Your task to perform on an android device: turn off sleep mode Image 0: 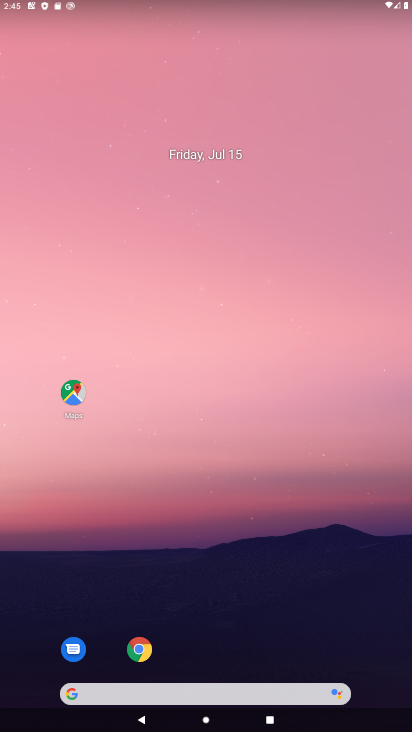
Step 0: drag from (297, 690) to (203, 80)
Your task to perform on an android device: turn off sleep mode Image 1: 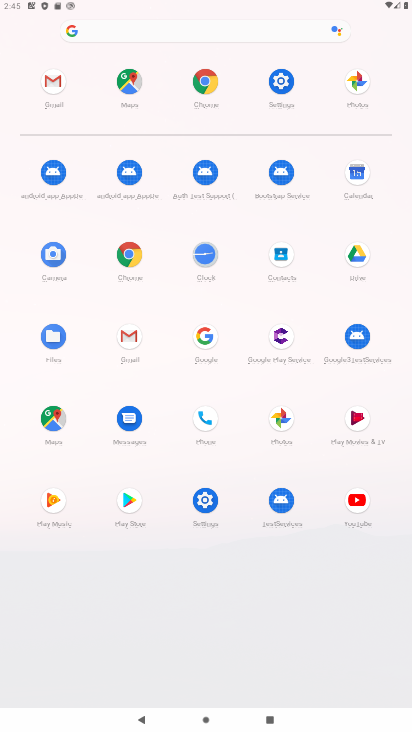
Step 1: click (281, 82)
Your task to perform on an android device: turn off sleep mode Image 2: 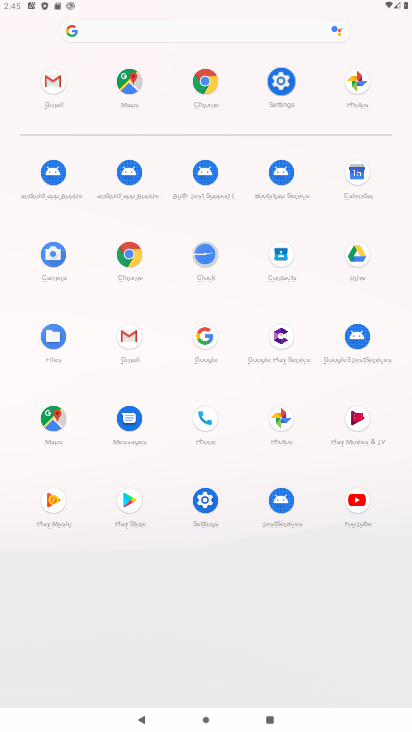
Step 2: click (281, 82)
Your task to perform on an android device: turn off sleep mode Image 3: 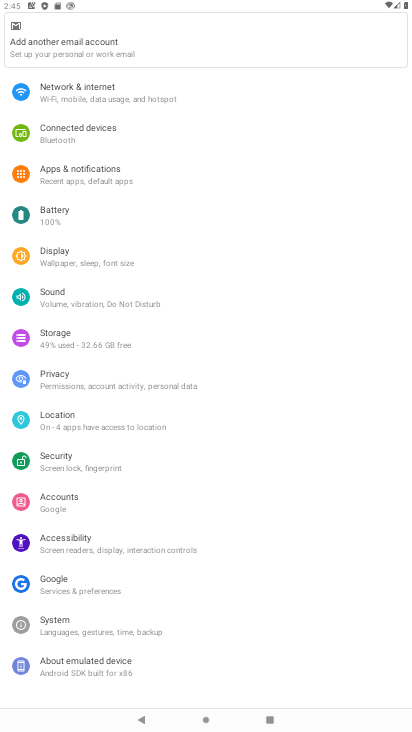
Step 3: click (86, 267)
Your task to perform on an android device: turn off sleep mode Image 4: 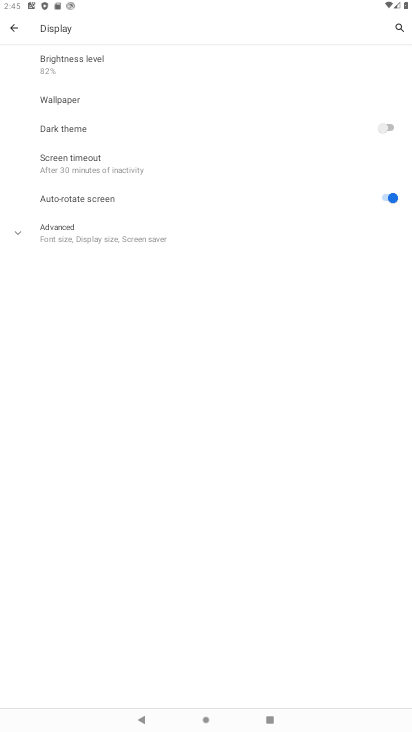
Step 4: click (75, 167)
Your task to perform on an android device: turn off sleep mode Image 5: 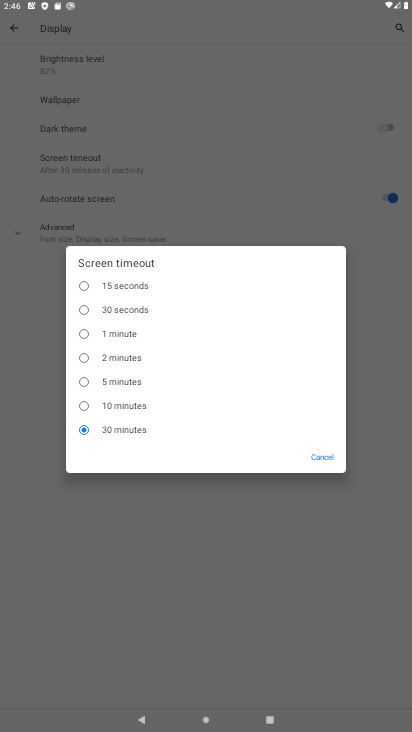
Step 5: task complete